Your task to perform on an android device: turn off location Image 0: 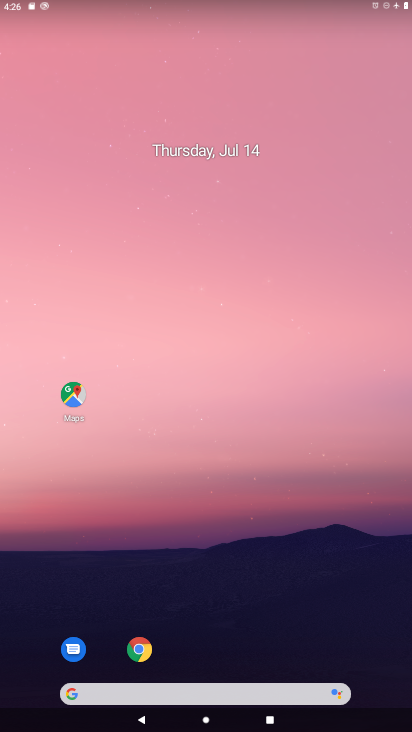
Step 0: drag from (228, 614) to (327, 287)
Your task to perform on an android device: turn off location Image 1: 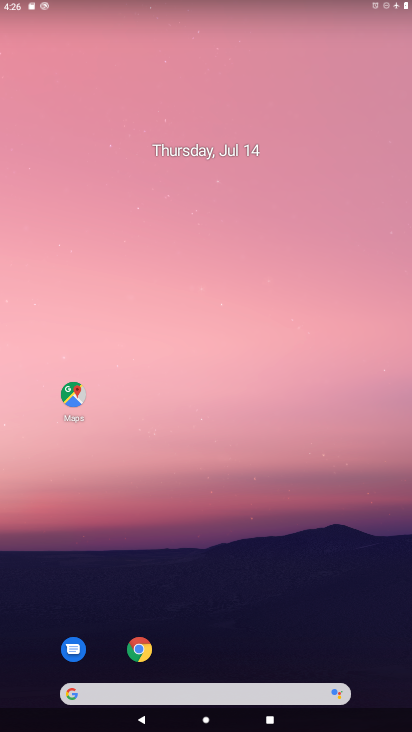
Step 1: drag from (172, 639) to (255, 6)
Your task to perform on an android device: turn off location Image 2: 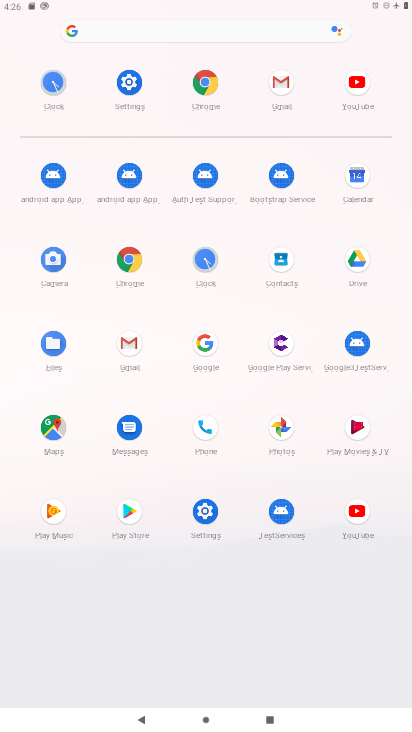
Step 2: click (217, 525)
Your task to perform on an android device: turn off location Image 3: 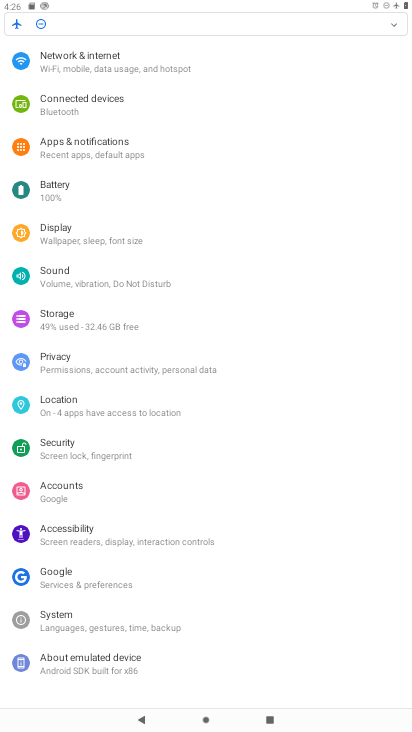
Step 3: click (81, 414)
Your task to perform on an android device: turn off location Image 4: 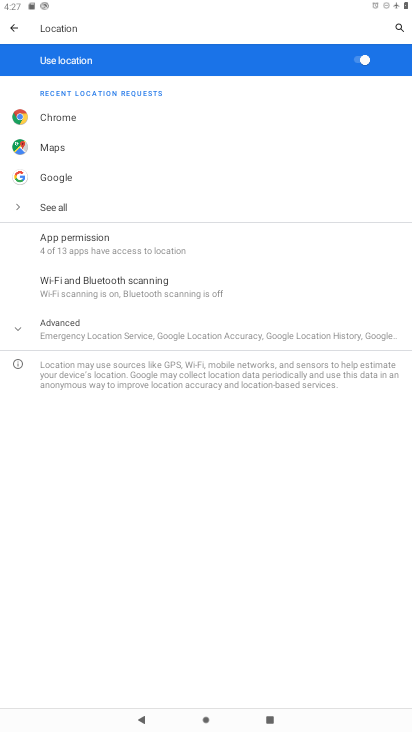
Step 4: click (353, 59)
Your task to perform on an android device: turn off location Image 5: 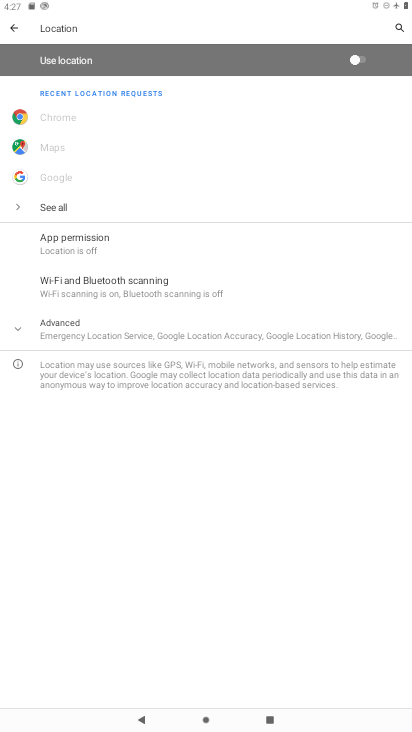
Step 5: task complete